Your task to perform on an android device: Show me recent news Image 0: 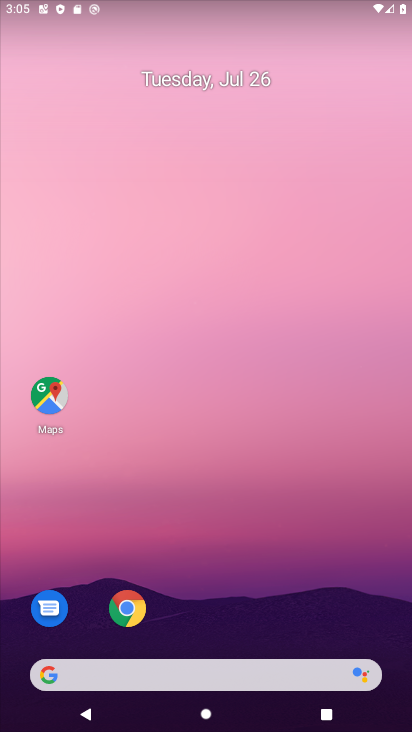
Step 0: drag from (278, 324) to (270, 2)
Your task to perform on an android device: Show me recent news Image 1: 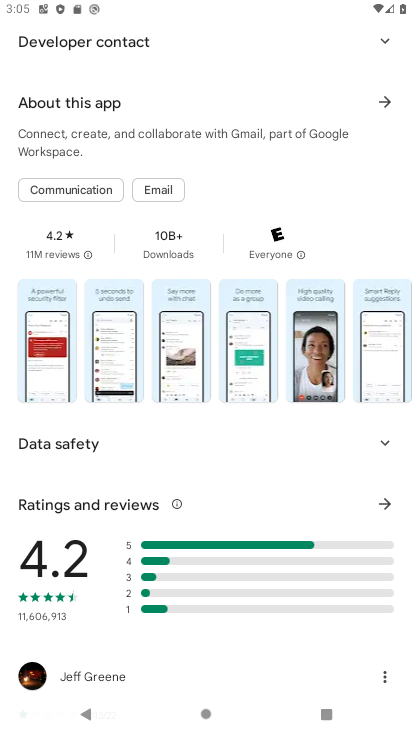
Step 1: press home button
Your task to perform on an android device: Show me recent news Image 2: 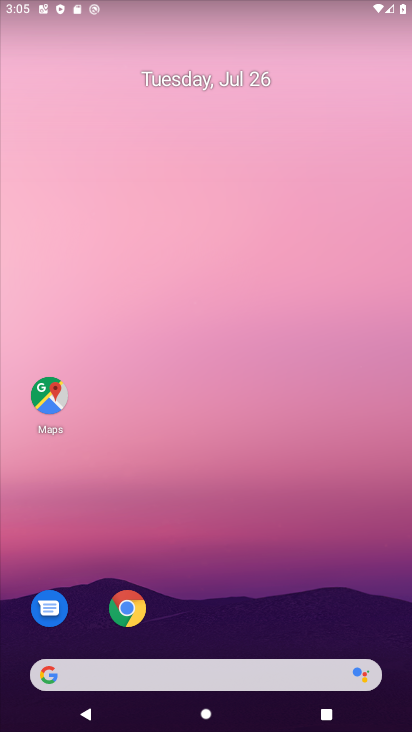
Step 2: click (228, 669)
Your task to perform on an android device: Show me recent news Image 3: 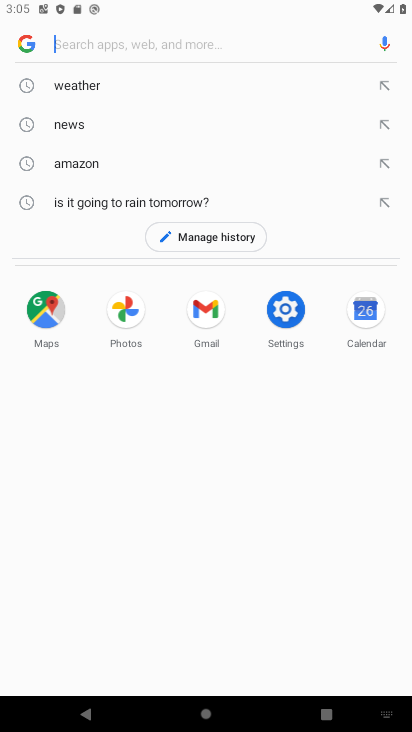
Step 3: click (84, 130)
Your task to perform on an android device: Show me recent news Image 4: 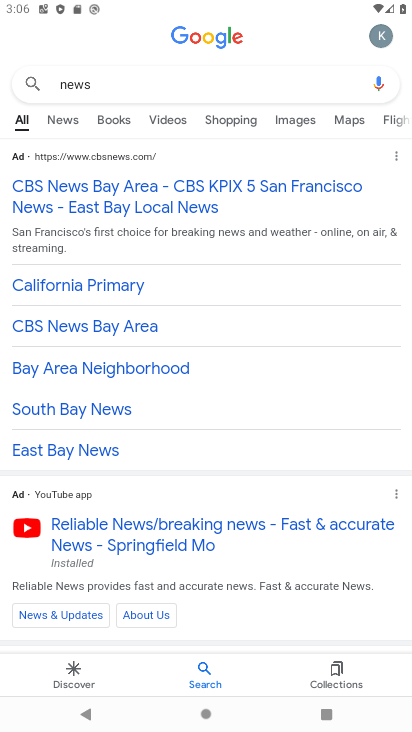
Step 4: task complete